Your task to perform on an android device: Search for Italian restaurants on Maps Image 0: 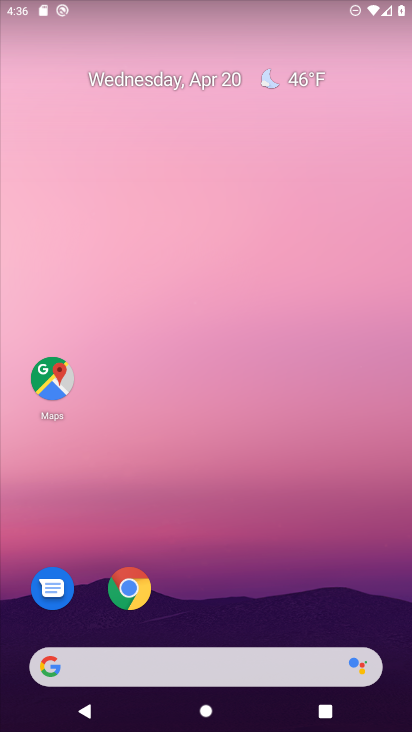
Step 0: drag from (215, 723) to (218, 99)
Your task to perform on an android device: Search for Italian restaurants on Maps Image 1: 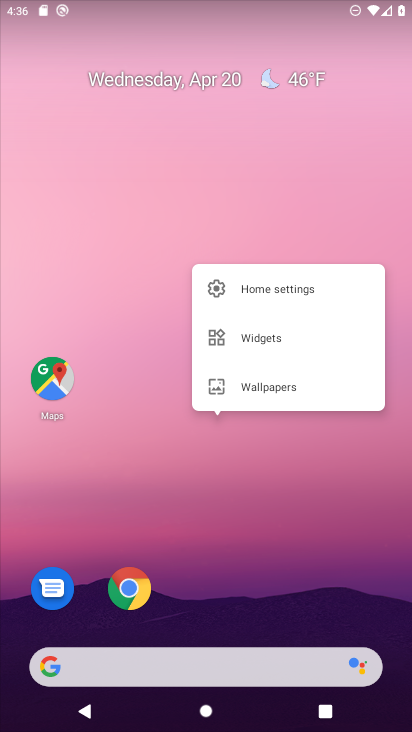
Step 1: click (220, 483)
Your task to perform on an android device: Search for Italian restaurants on Maps Image 2: 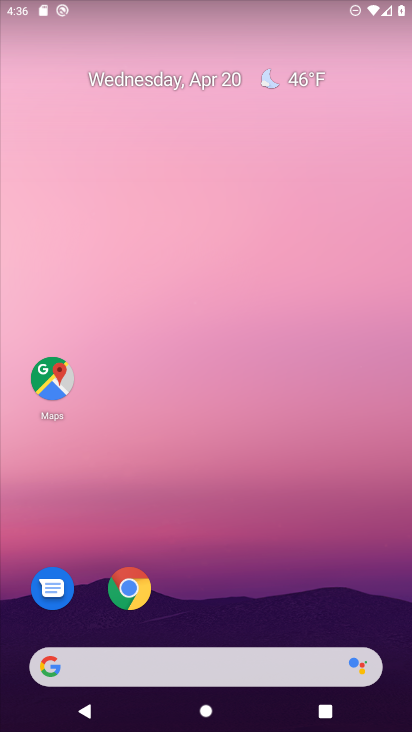
Step 2: drag from (204, 681) to (201, 118)
Your task to perform on an android device: Search for Italian restaurants on Maps Image 3: 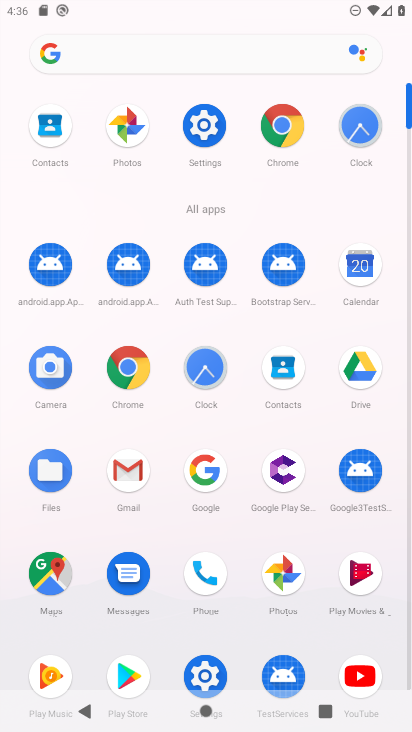
Step 3: click (49, 583)
Your task to perform on an android device: Search for Italian restaurants on Maps Image 4: 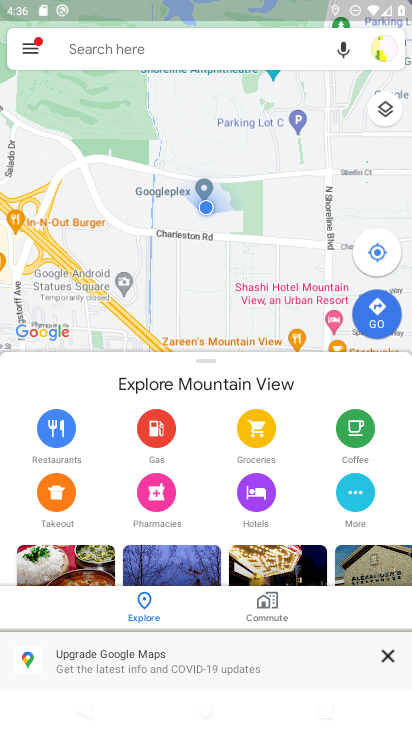
Step 4: click (205, 49)
Your task to perform on an android device: Search for Italian restaurants on Maps Image 5: 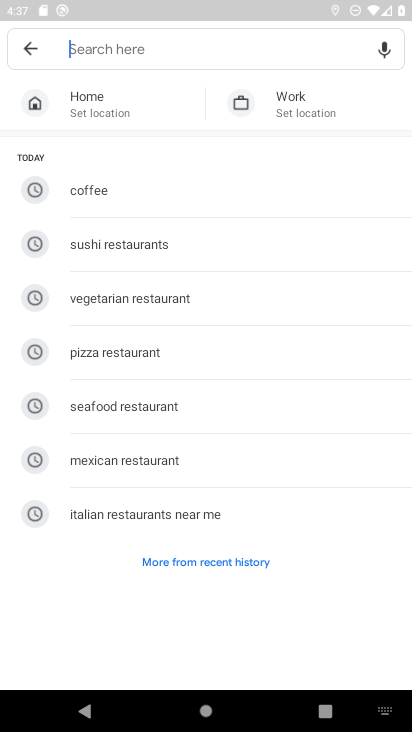
Step 5: type "italian restaurants"
Your task to perform on an android device: Search for Italian restaurants on Maps Image 6: 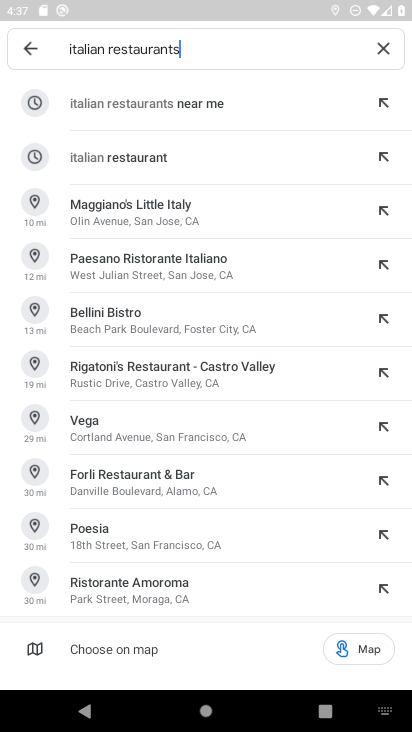
Step 6: click (157, 149)
Your task to perform on an android device: Search for Italian restaurants on Maps Image 7: 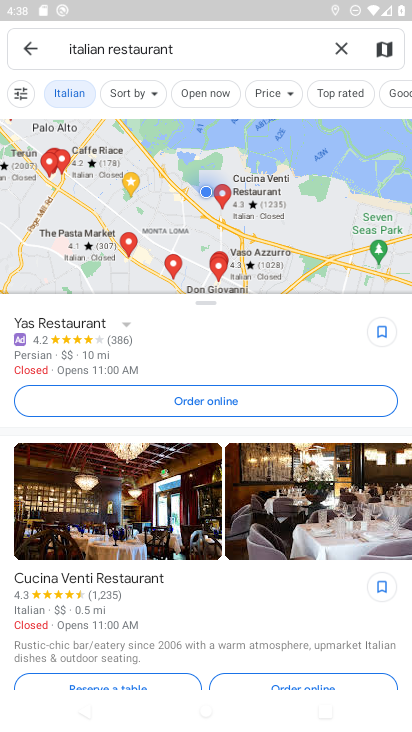
Step 7: task complete